Your task to perform on an android device: Empty the shopping cart on newegg.com. Add "lenovo thinkpad" to the cart on newegg.com, then select checkout. Image 0: 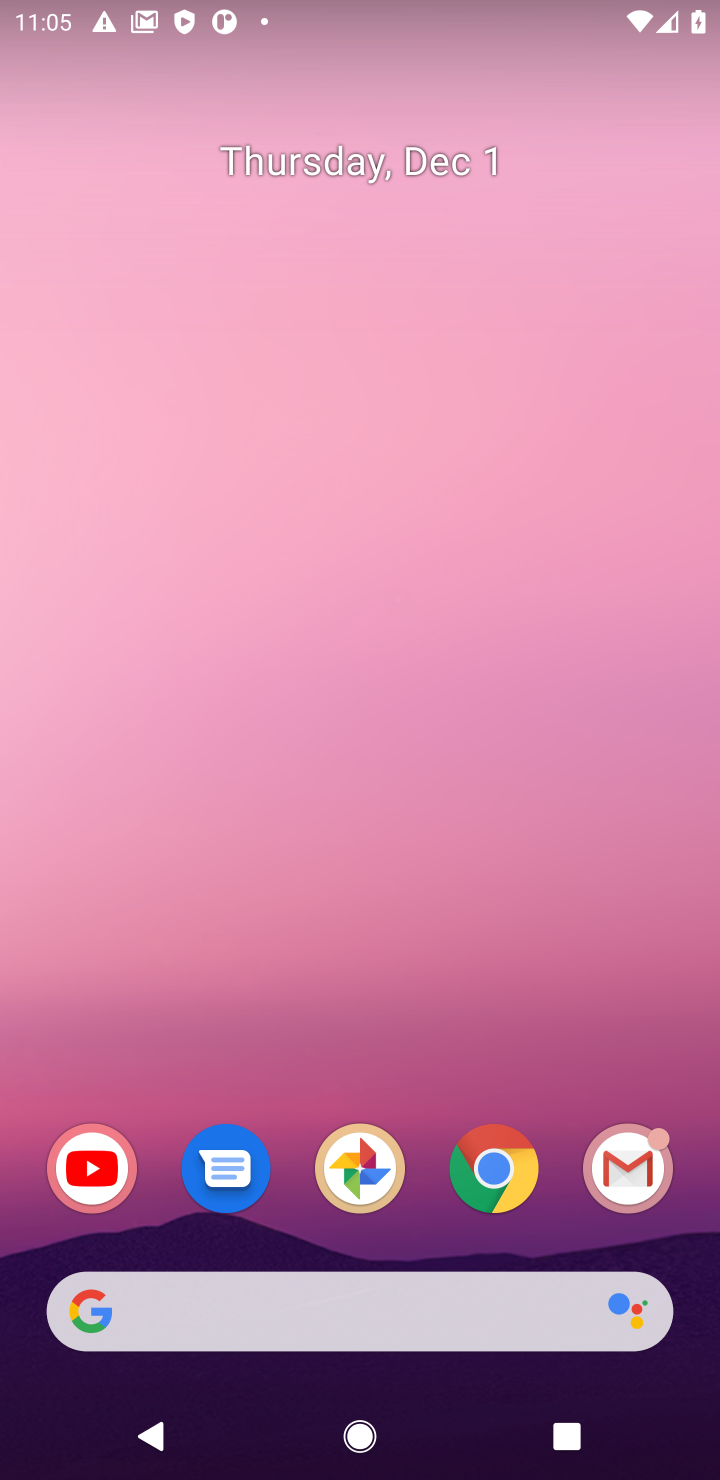
Step 0: click (498, 1178)
Your task to perform on an android device: Empty the shopping cart on newegg.com. Add "lenovo thinkpad" to the cart on newegg.com, then select checkout. Image 1: 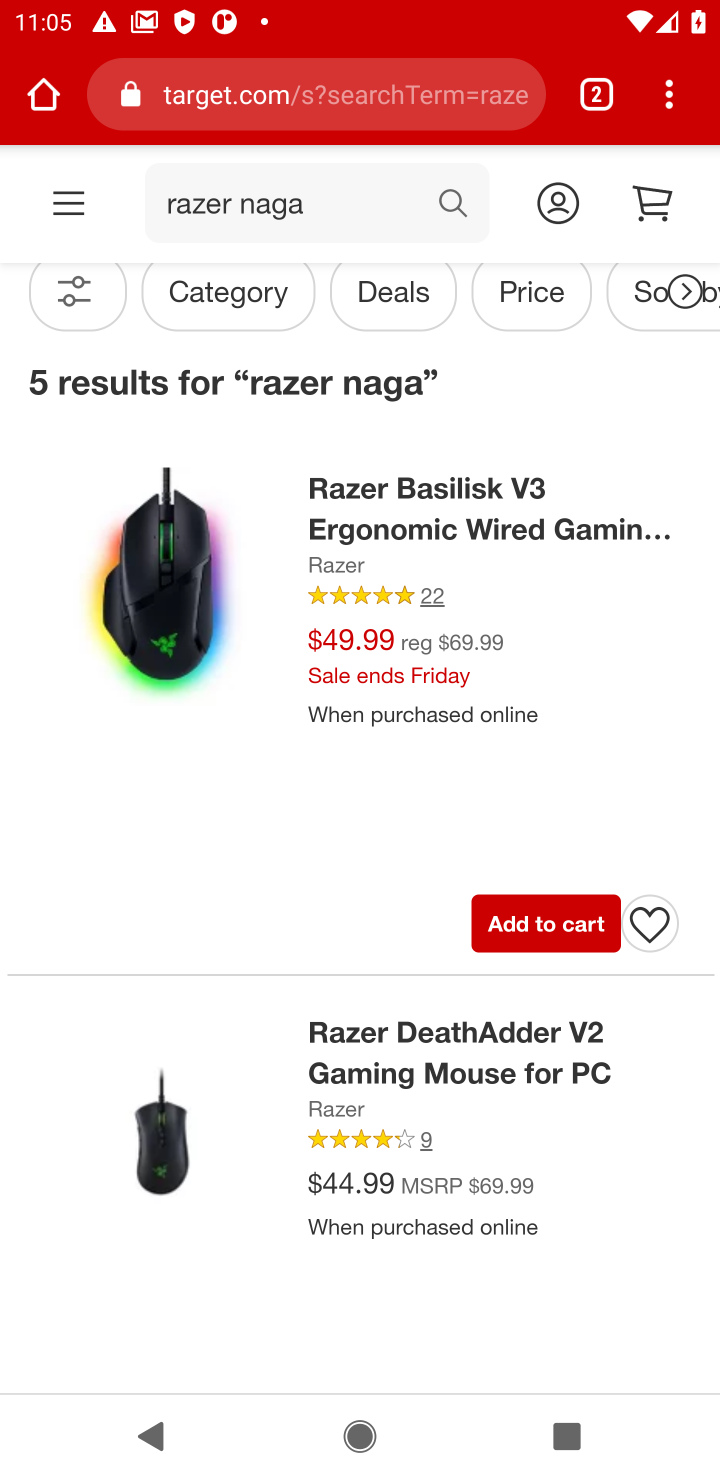
Step 1: click (283, 109)
Your task to perform on an android device: Empty the shopping cart on newegg.com. Add "lenovo thinkpad" to the cart on newegg.com, then select checkout. Image 2: 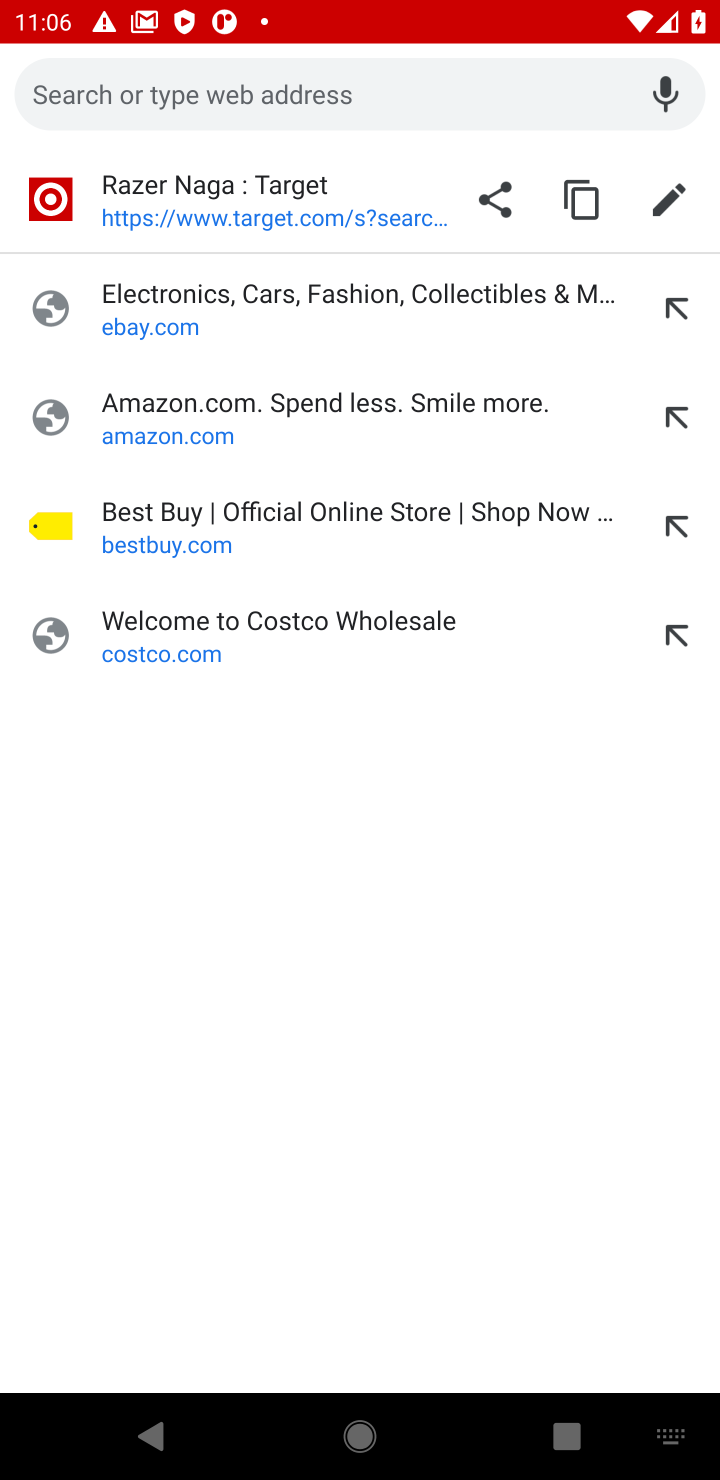
Step 2: type "newegg.com"
Your task to perform on an android device: Empty the shopping cart on newegg.com. Add "lenovo thinkpad" to the cart on newegg.com, then select checkout. Image 3: 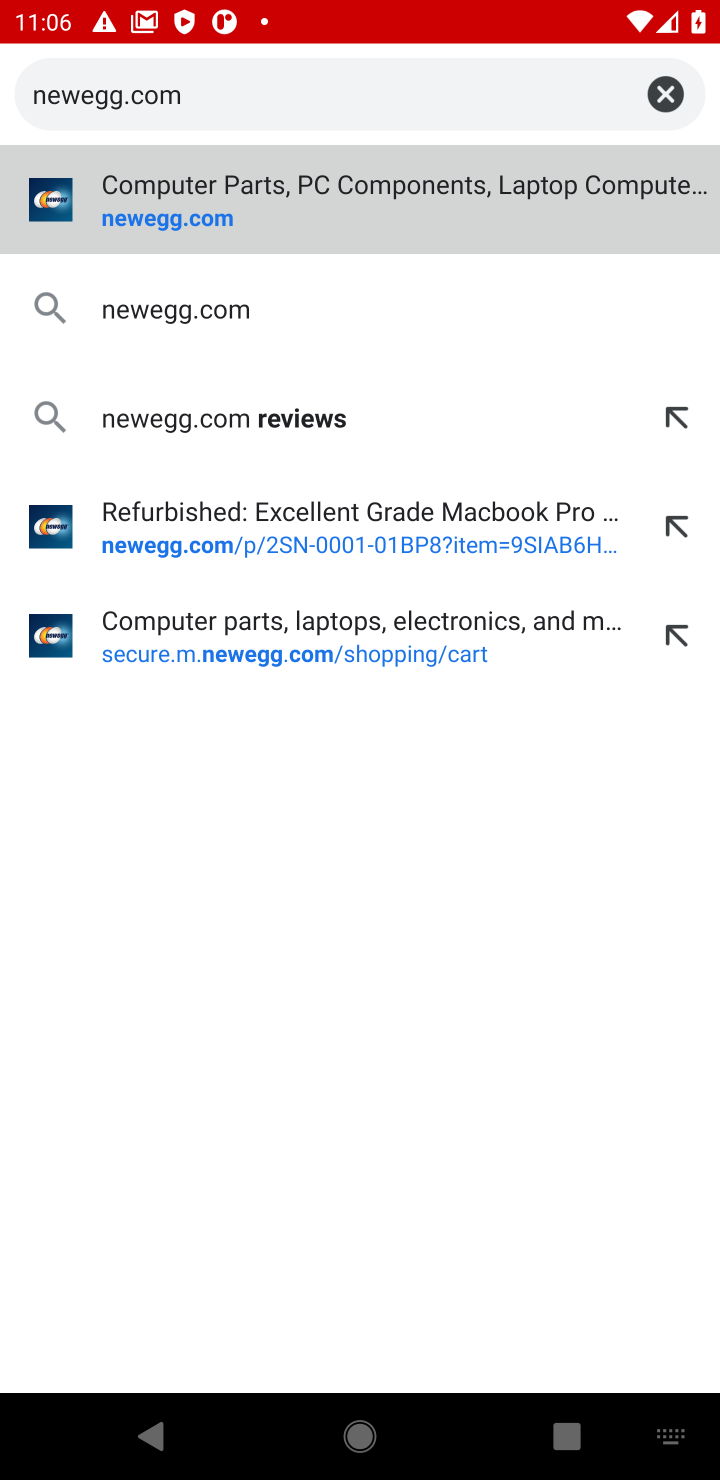
Step 3: click (145, 228)
Your task to perform on an android device: Empty the shopping cart on newegg.com. Add "lenovo thinkpad" to the cart on newegg.com, then select checkout. Image 4: 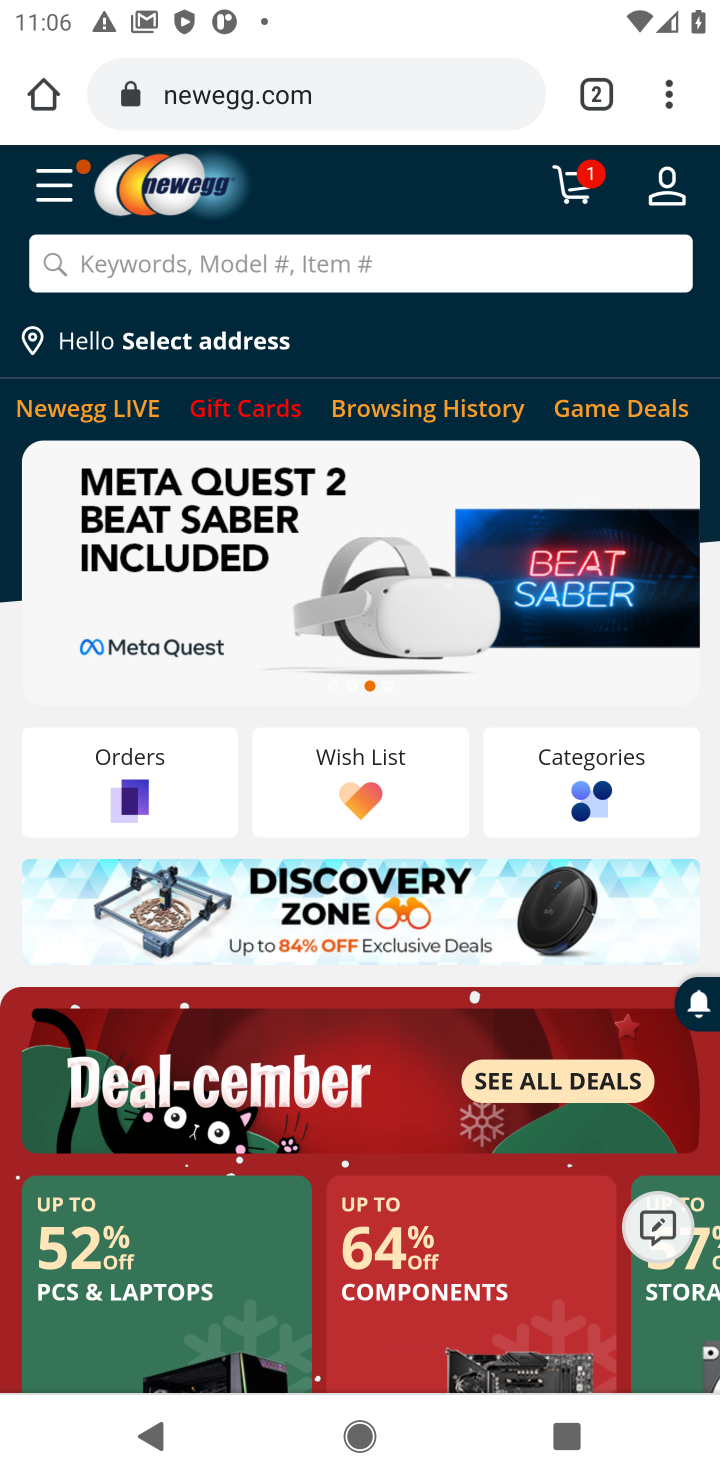
Step 4: click (583, 189)
Your task to perform on an android device: Empty the shopping cart on newegg.com. Add "lenovo thinkpad" to the cart on newegg.com, then select checkout. Image 5: 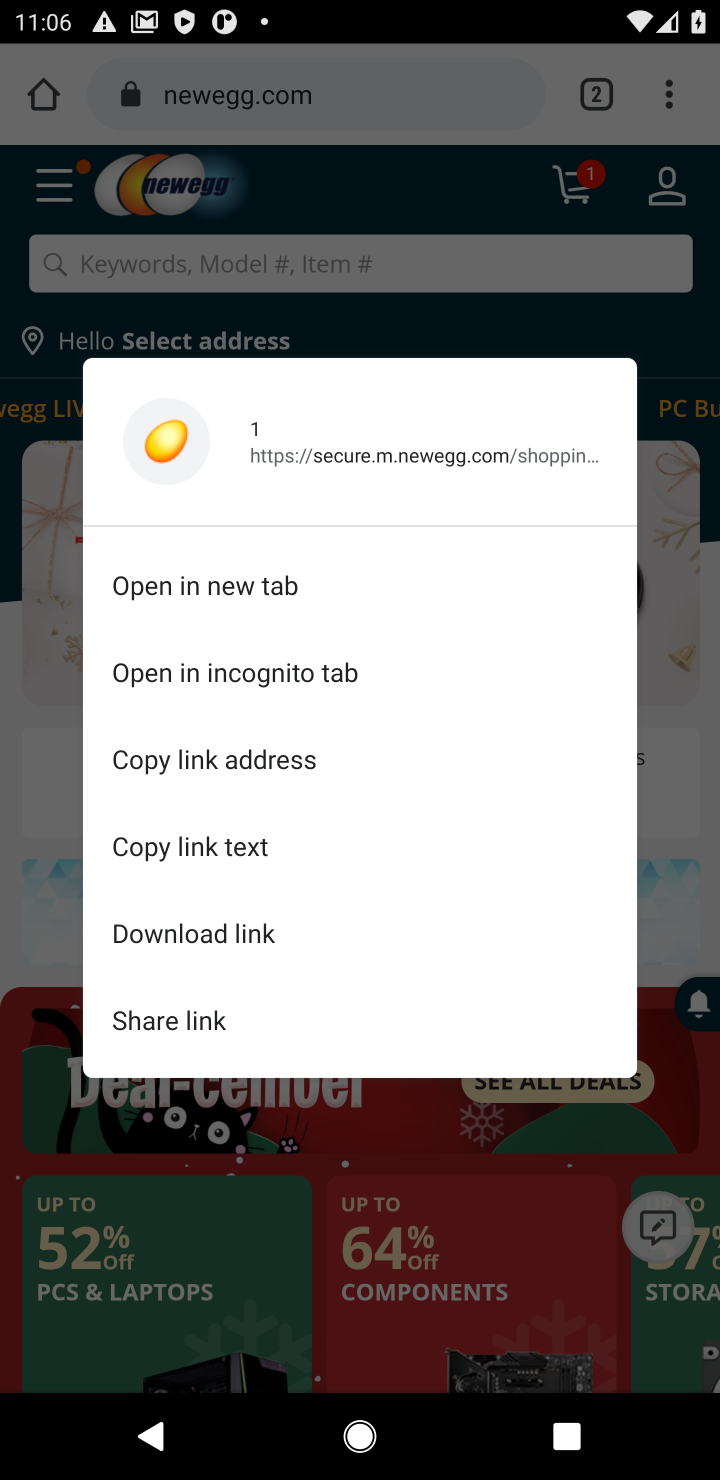
Step 5: click (565, 198)
Your task to perform on an android device: Empty the shopping cart on newegg.com. Add "lenovo thinkpad" to the cart on newegg.com, then select checkout. Image 6: 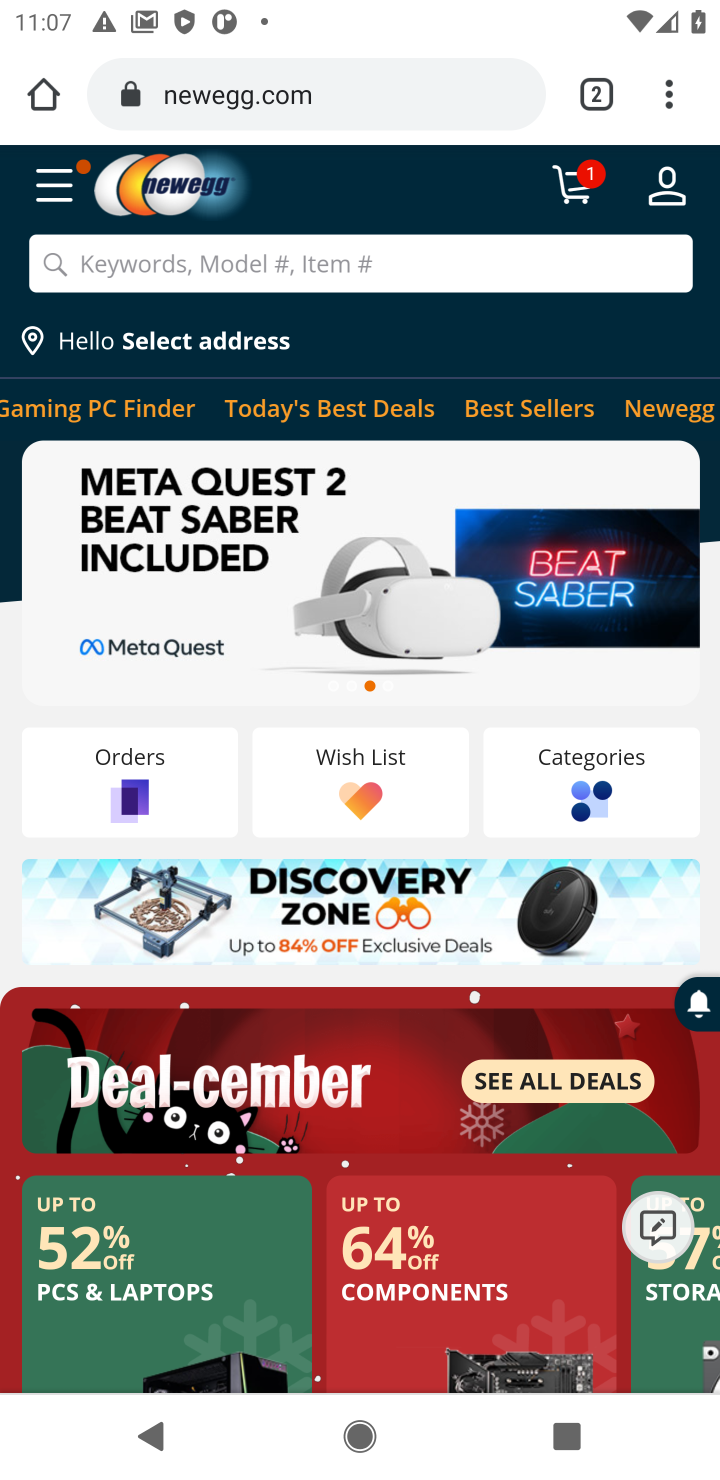
Step 6: click (571, 209)
Your task to perform on an android device: Empty the shopping cart on newegg.com. Add "lenovo thinkpad" to the cart on newegg.com, then select checkout. Image 7: 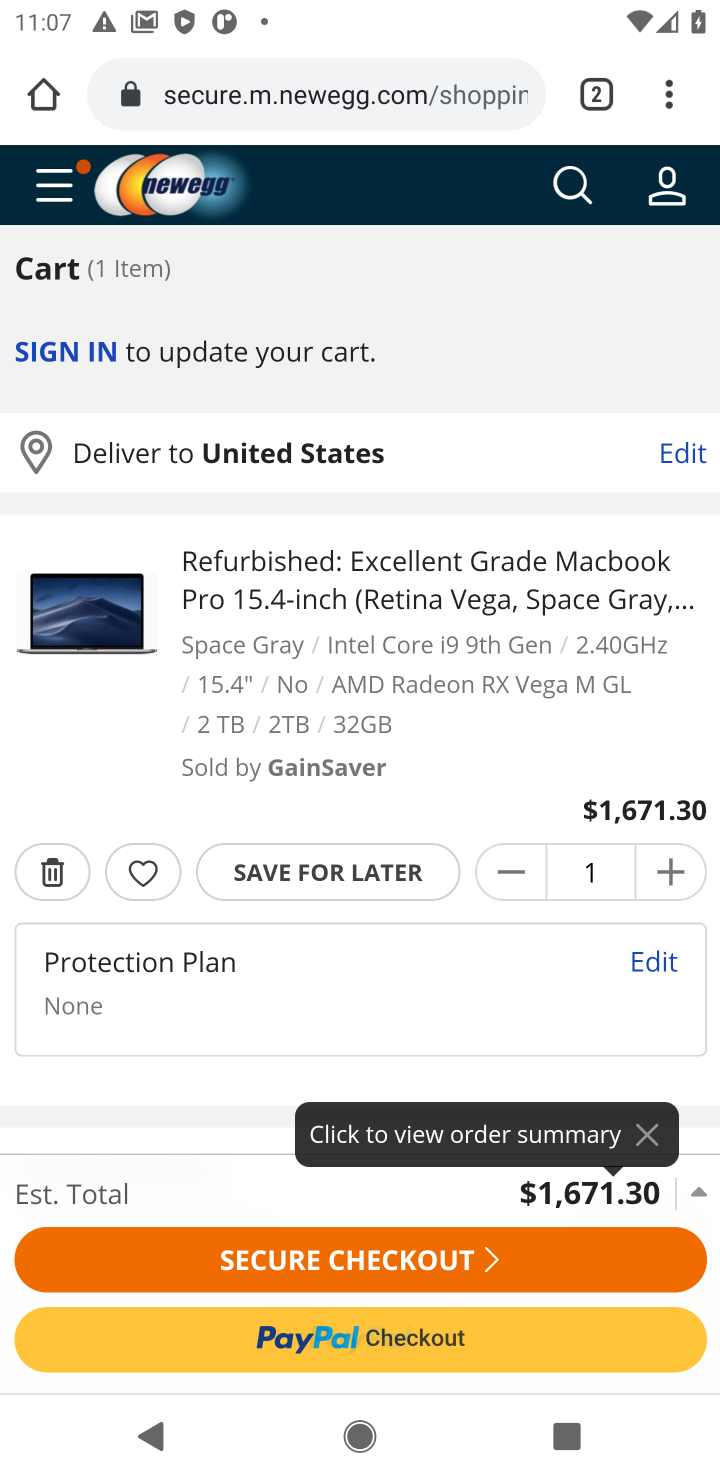
Step 7: click (40, 870)
Your task to perform on an android device: Empty the shopping cart on newegg.com. Add "lenovo thinkpad" to the cart on newegg.com, then select checkout. Image 8: 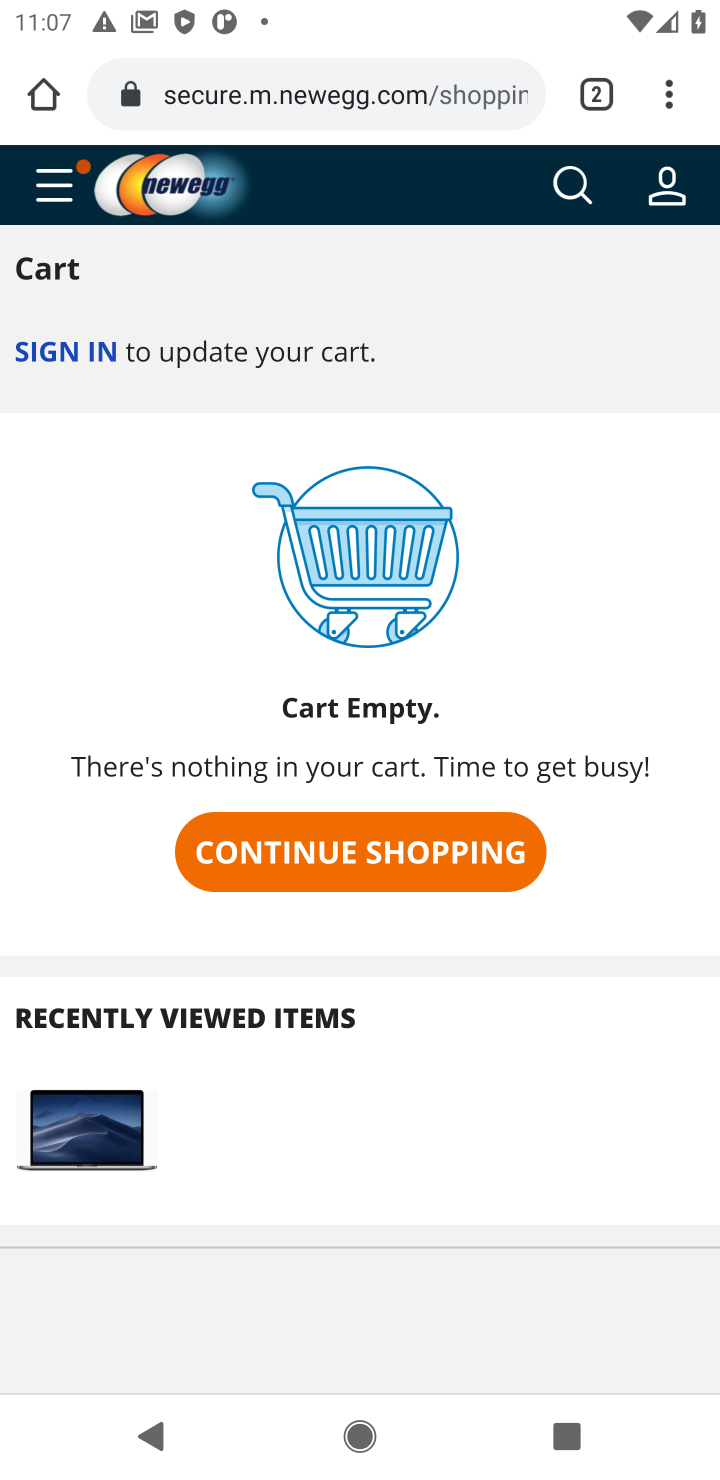
Step 8: click (578, 194)
Your task to perform on an android device: Empty the shopping cart on newegg.com. Add "lenovo thinkpad" to the cart on newegg.com, then select checkout. Image 9: 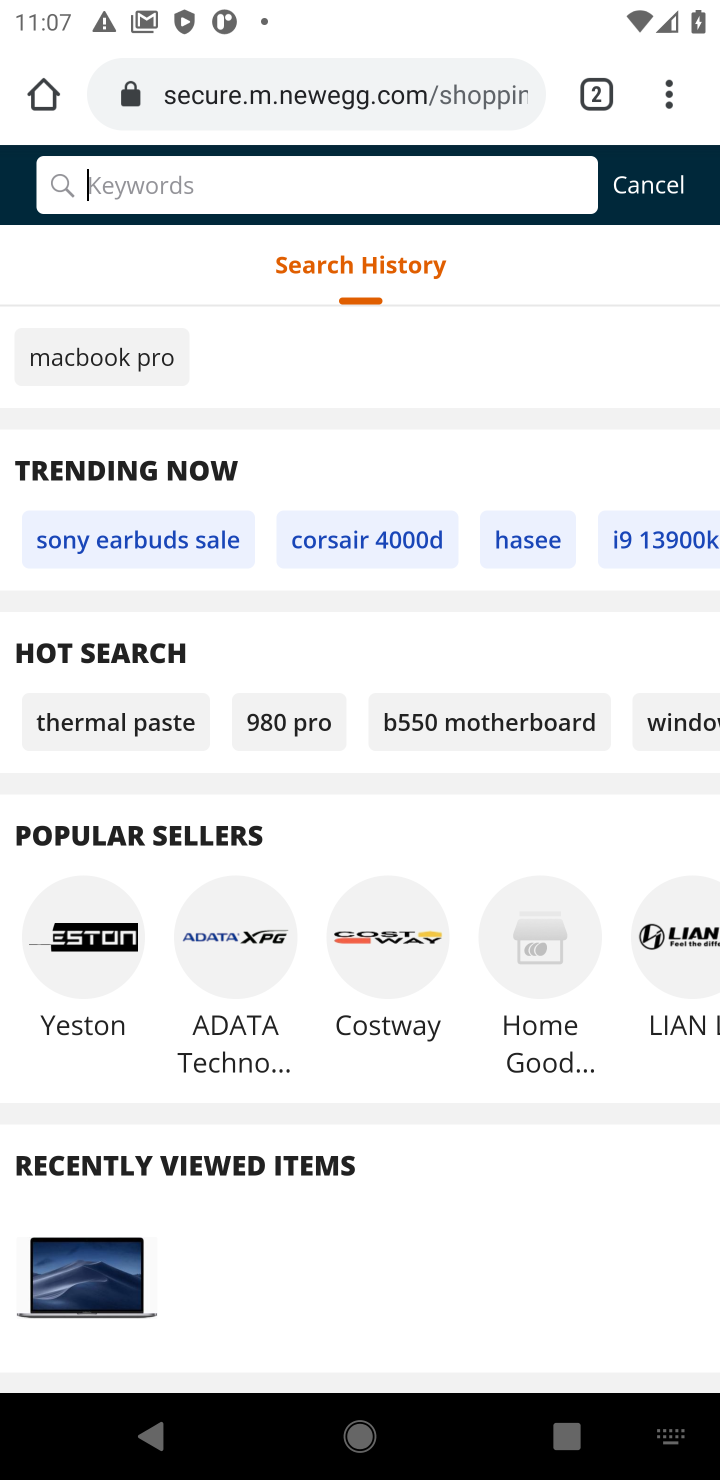
Step 9: click (160, 193)
Your task to perform on an android device: Empty the shopping cart on newegg.com. Add "lenovo thinkpad" to the cart on newegg.com, then select checkout. Image 10: 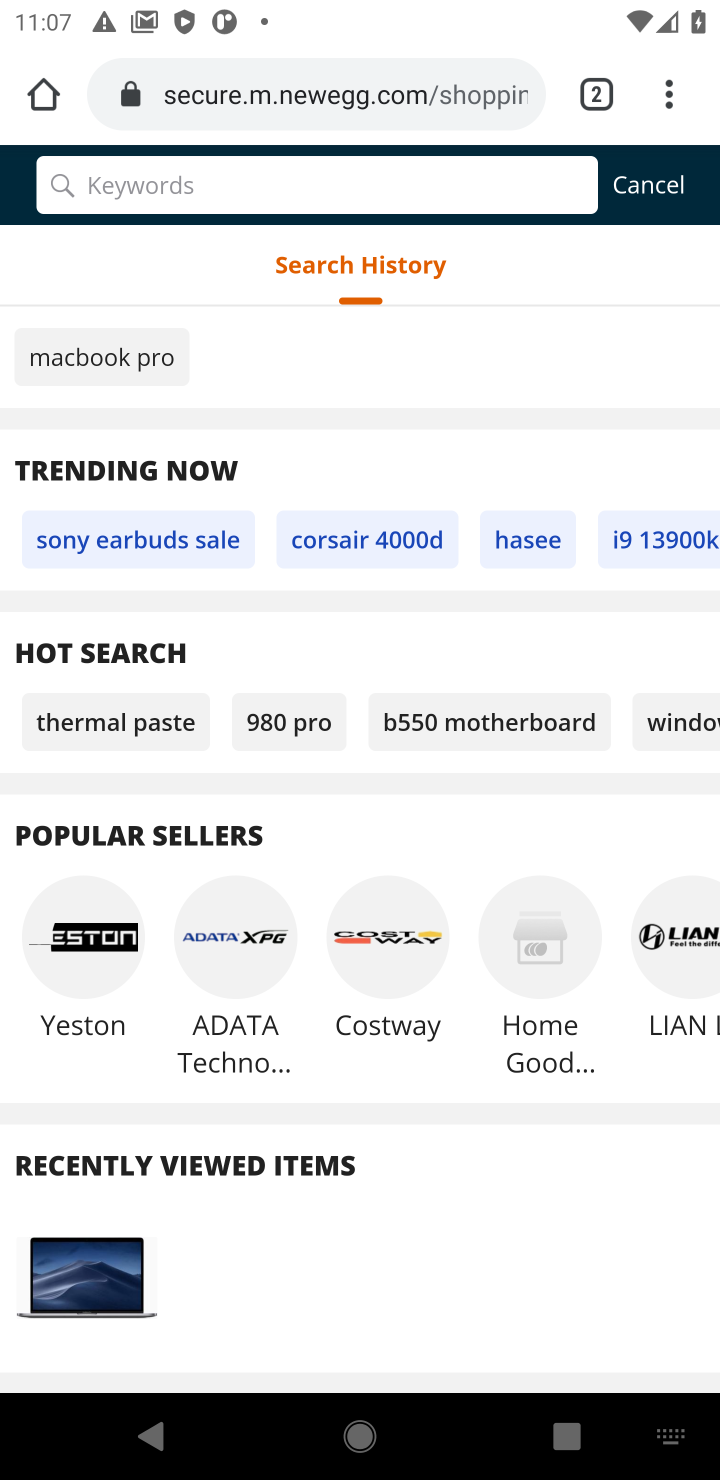
Step 10: type "lenovo thinkpad"
Your task to perform on an android device: Empty the shopping cart on newegg.com. Add "lenovo thinkpad" to the cart on newegg.com, then select checkout. Image 11: 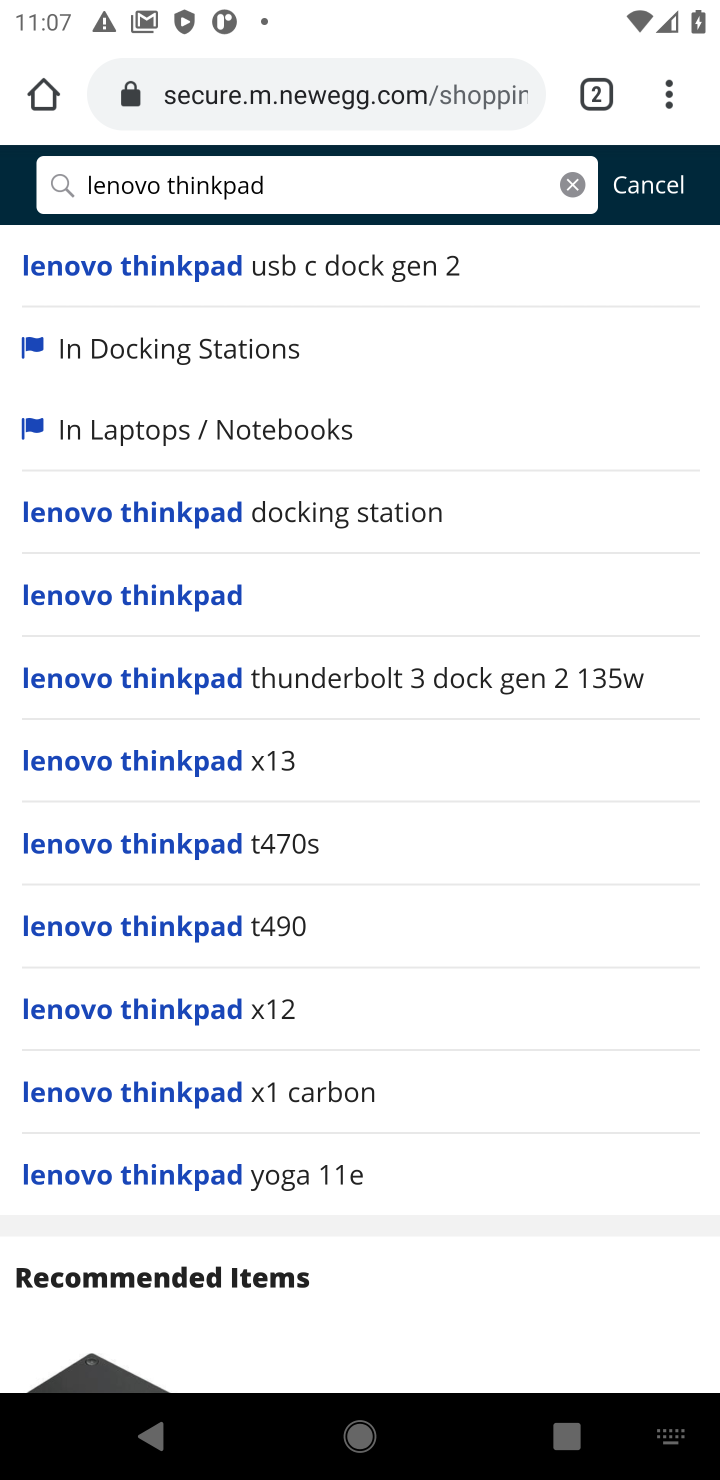
Step 11: click (171, 592)
Your task to perform on an android device: Empty the shopping cart on newegg.com. Add "lenovo thinkpad" to the cart on newegg.com, then select checkout. Image 12: 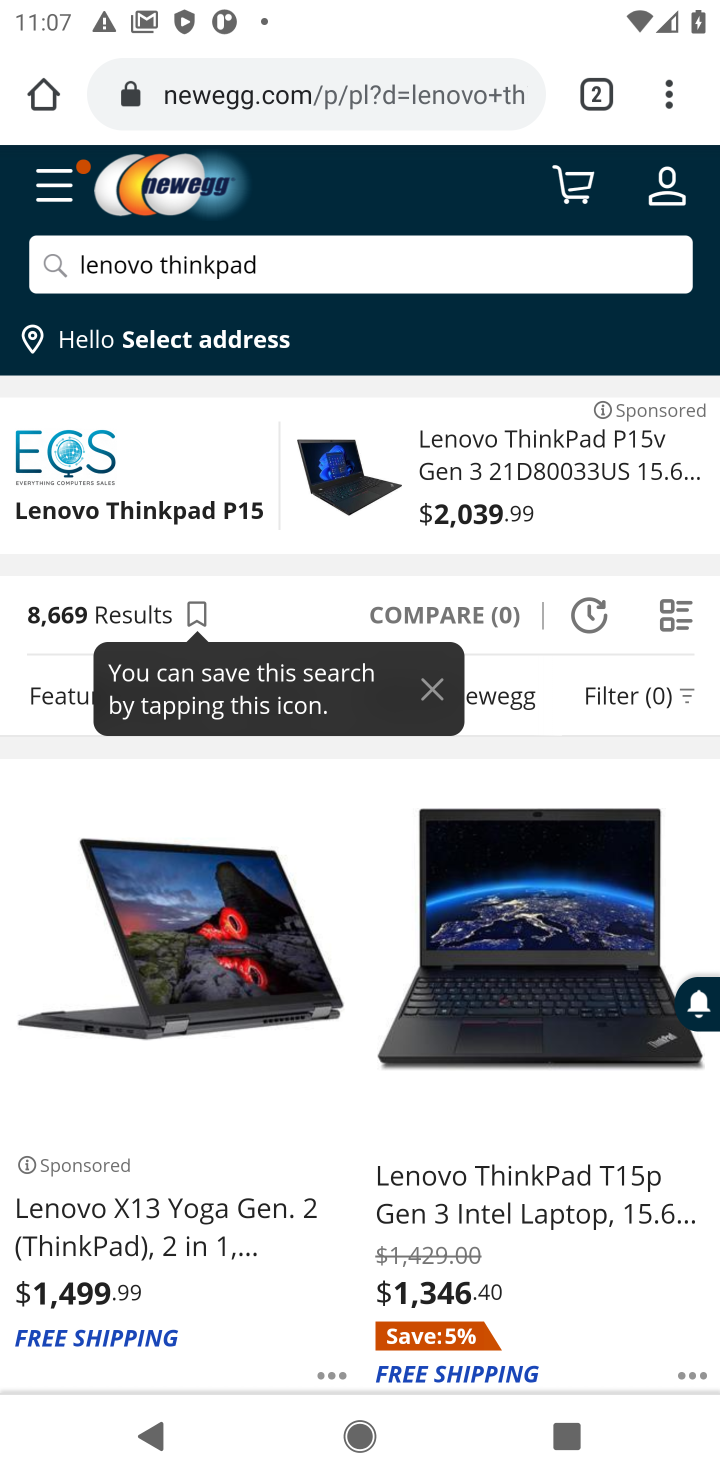
Step 12: click (101, 1222)
Your task to perform on an android device: Empty the shopping cart on newegg.com. Add "lenovo thinkpad" to the cart on newegg.com, then select checkout. Image 13: 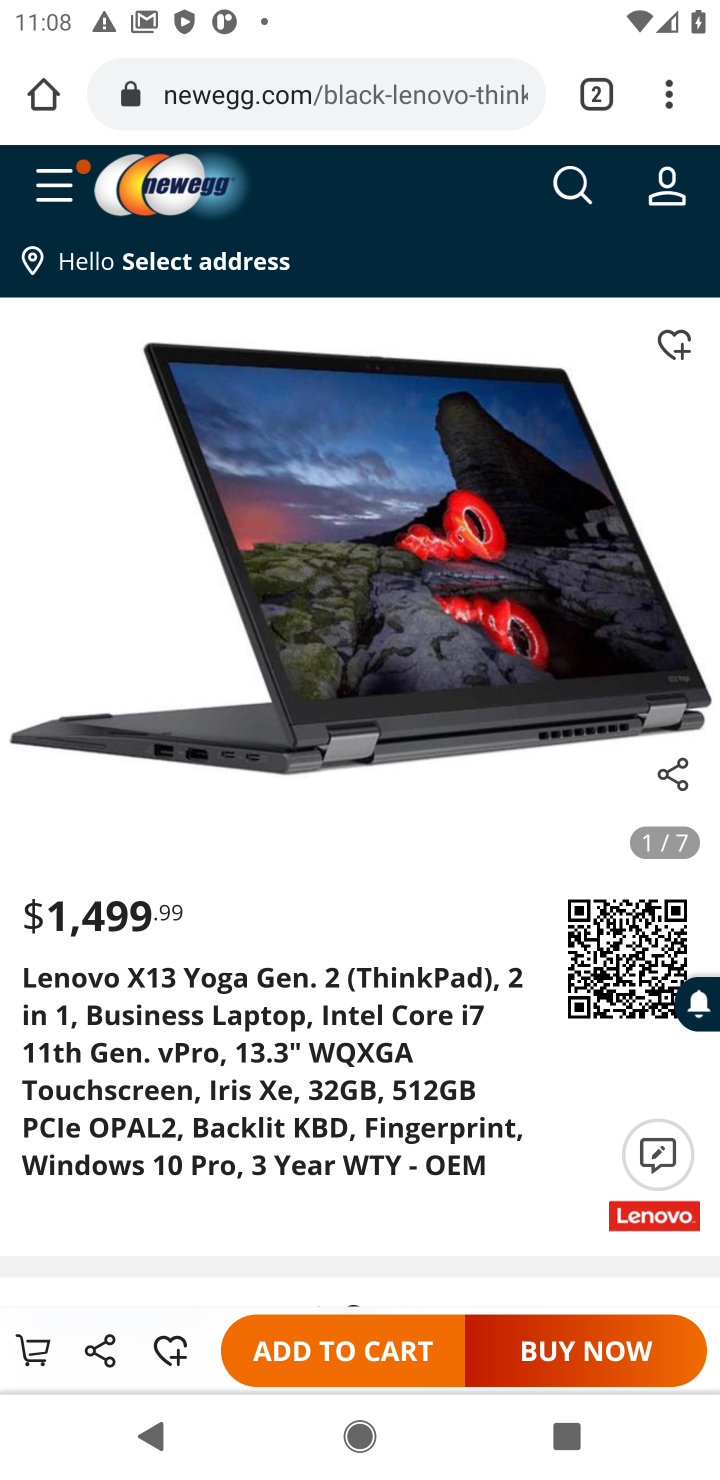
Step 13: click (326, 1354)
Your task to perform on an android device: Empty the shopping cart on newegg.com. Add "lenovo thinkpad" to the cart on newegg.com, then select checkout. Image 14: 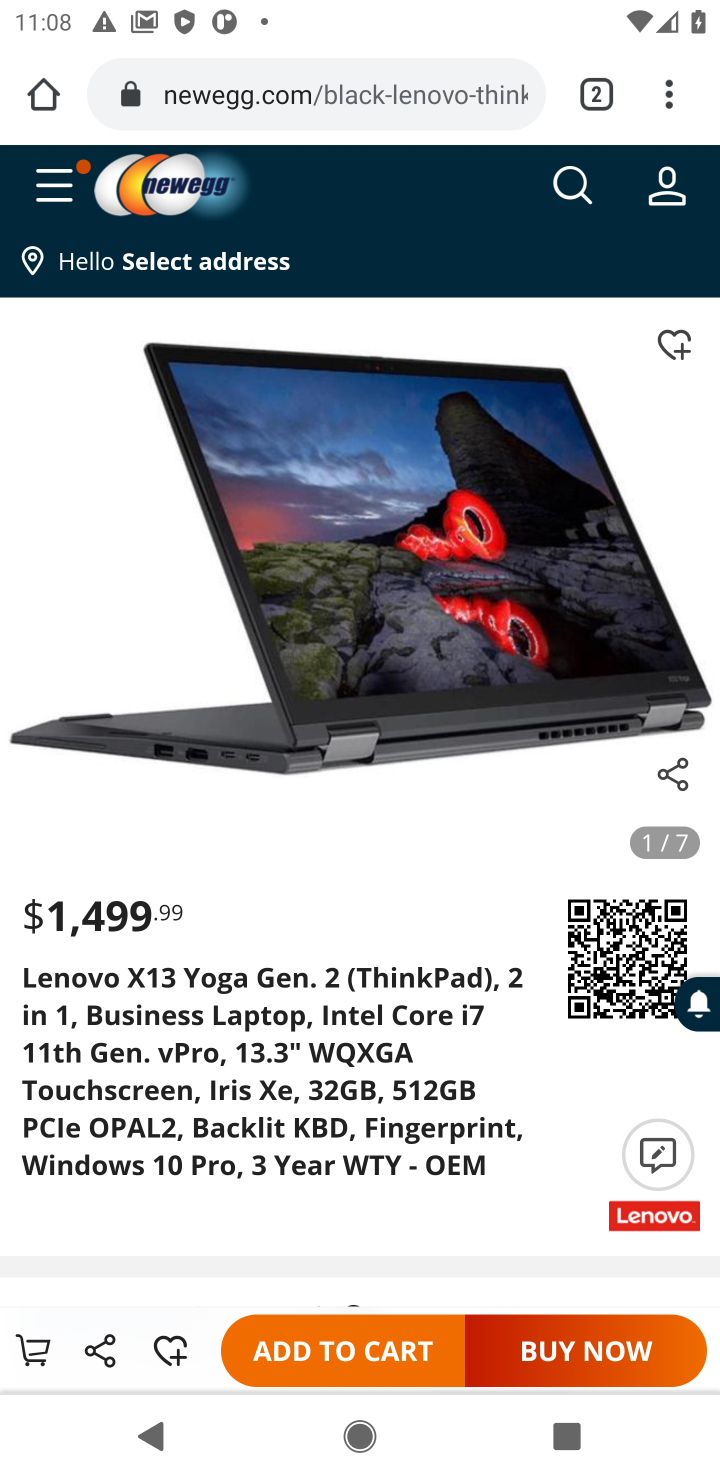
Step 14: click (326, 1354)
Your task to perform on an android device: Empty the shopping cart on newegg.com. Add "lenovo thinkpad" to the cart on newegg.com, then select checkout. Image 15: 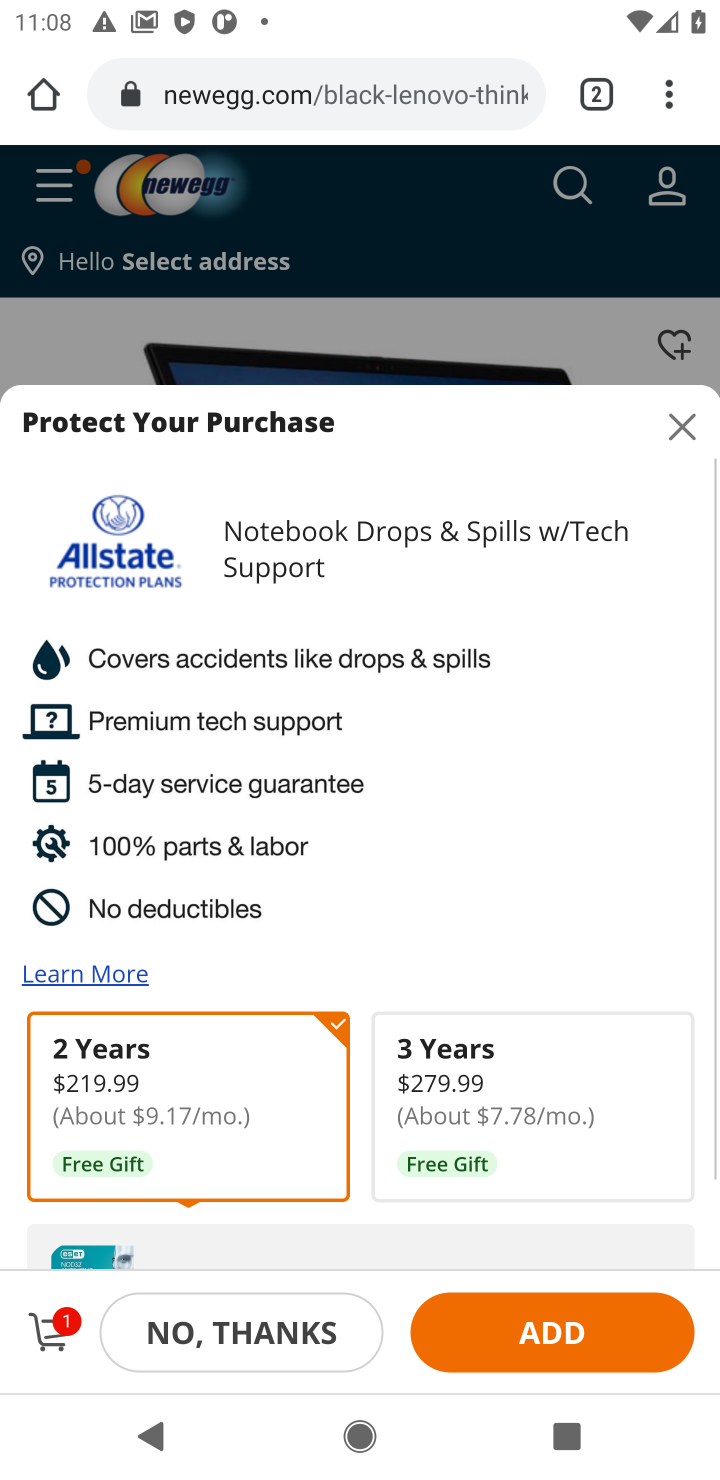
Step 15: click (55, 1337)
Your task to perform on an android device: Empty the shopping cart on newegg.com. Add "lenovo thinkpad" to the cart on newegg.com, then select checkout. Image 16: 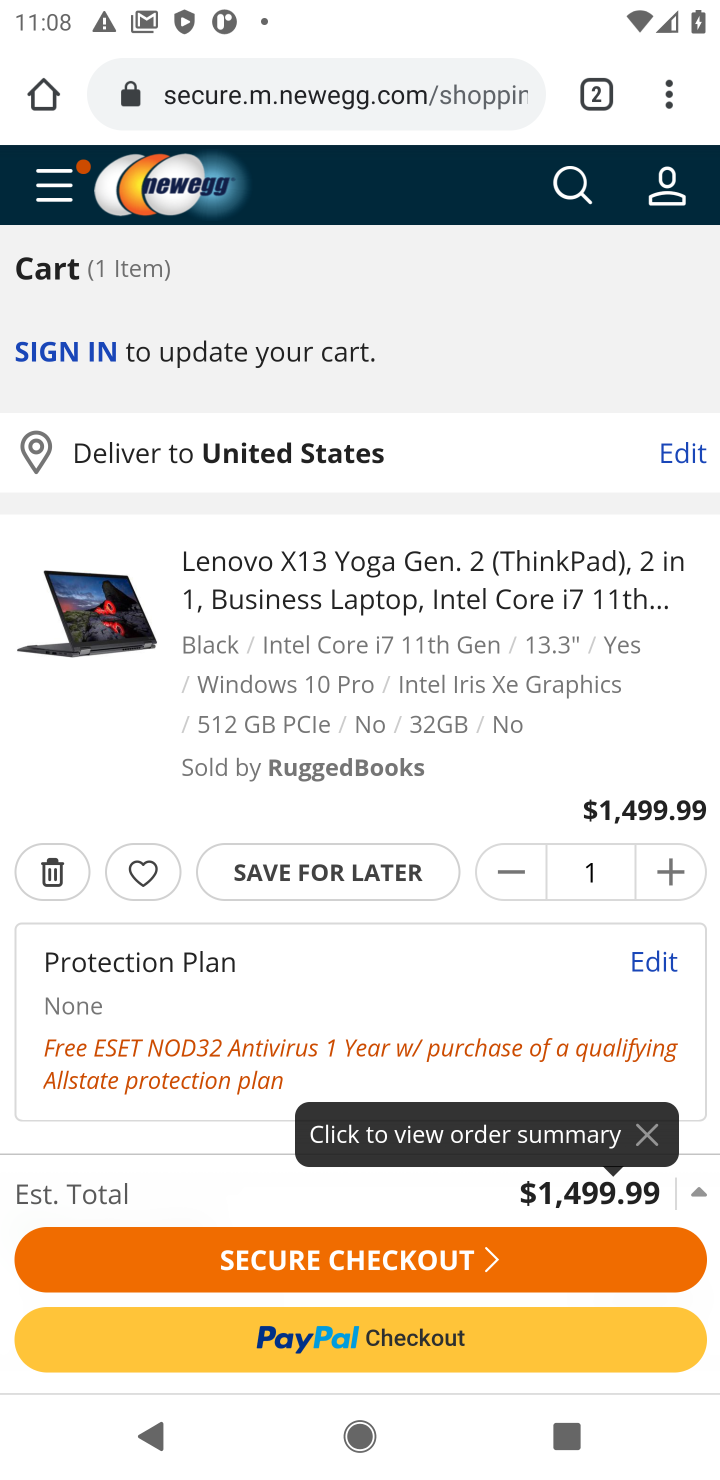
Step 16: click (271, 1262)
Your task to perform on an android device: Empty the shopping cart on newegg.com. Add "lenovo thinkpad" to the cart on newegg.com, then select checkout. Image 17: 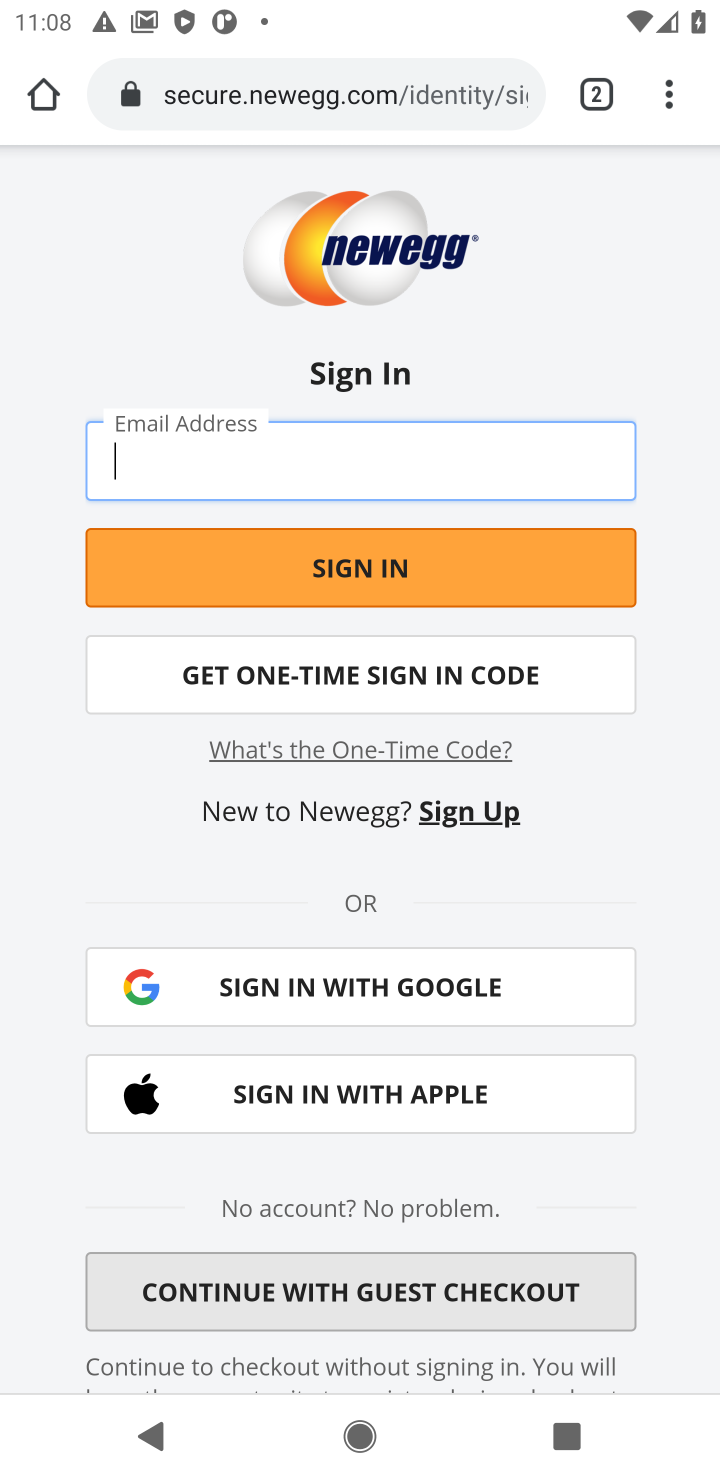
Step 17: task complete